Your task to perform on an android device: Open my contact list Image 0: 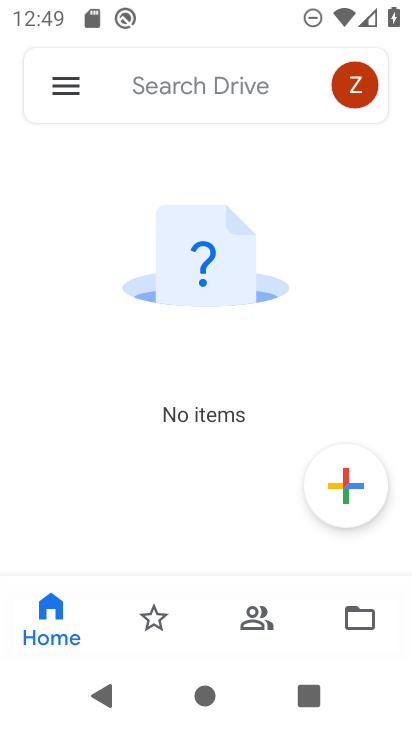
Step 0: press back button
Your task to perform on an android device: Open my contact list Image 1: 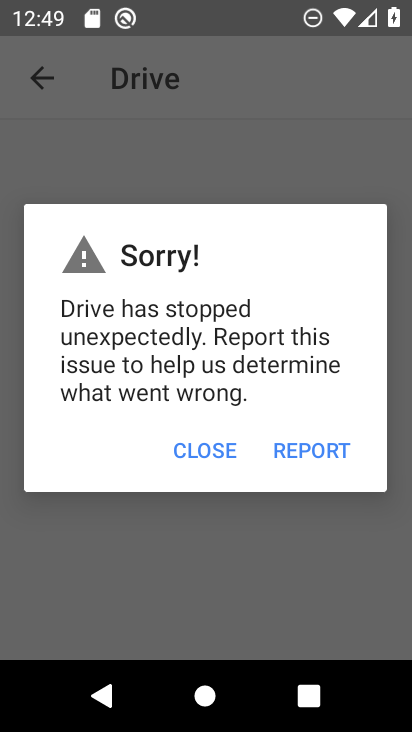
Step 1: press home button
Your task to perform on an android device: Open my contact list Image 2: 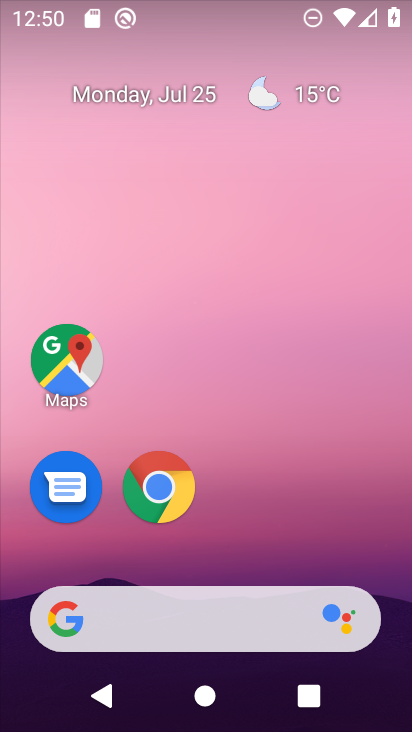
Step 2: drag from (210, 548) to (261, 12)
Your task to perform on an android device: Open my contact list Image 3: 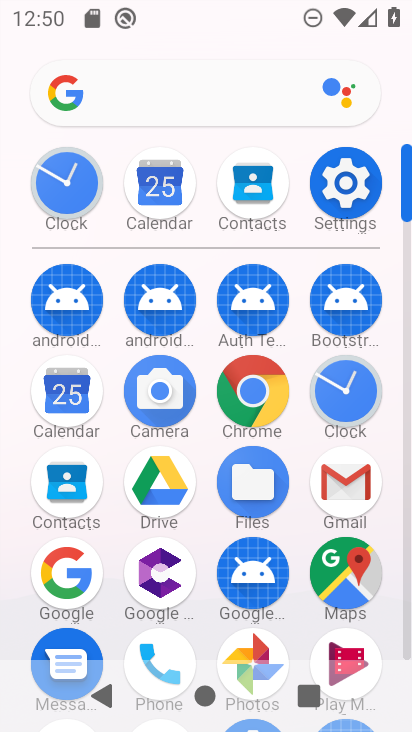
Step 3: click (63, 492)
Your task to perform on an android device: Open my contact list Image 4: 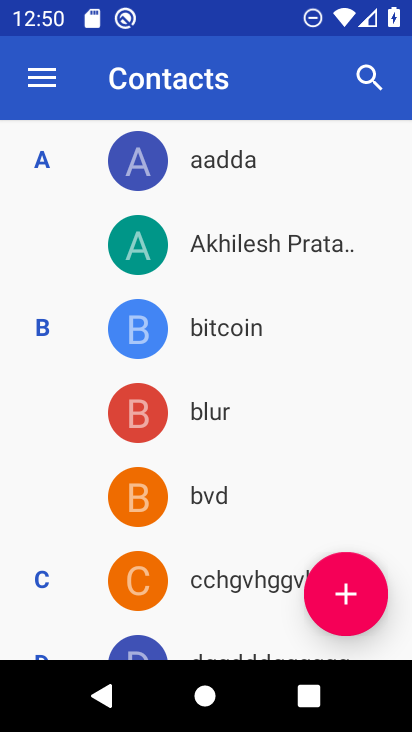
Step 4: task complete